Your task to perform on an android device: open chrome privacy settings Image 0: 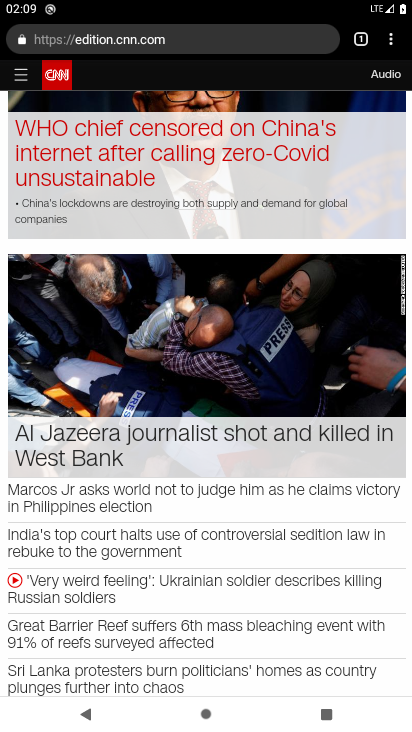
Step 0: press home button
Your task to perform on an android device: open chrome privacy settings Image 1: 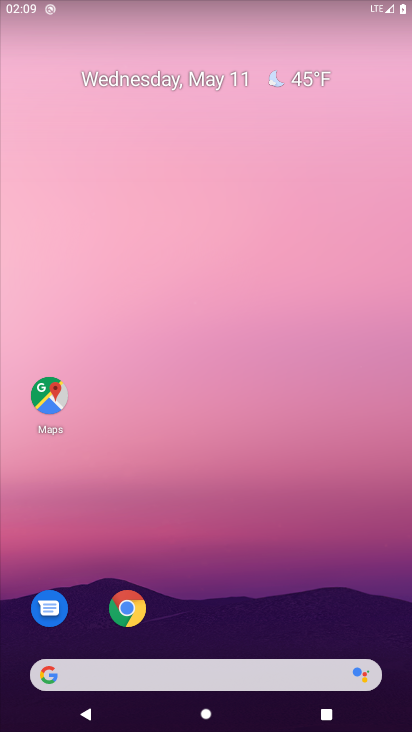
Step 1: drag from (214, 561) to (268, 164)
Your task to perform on an android device: open chrome privacy settings Image 2: 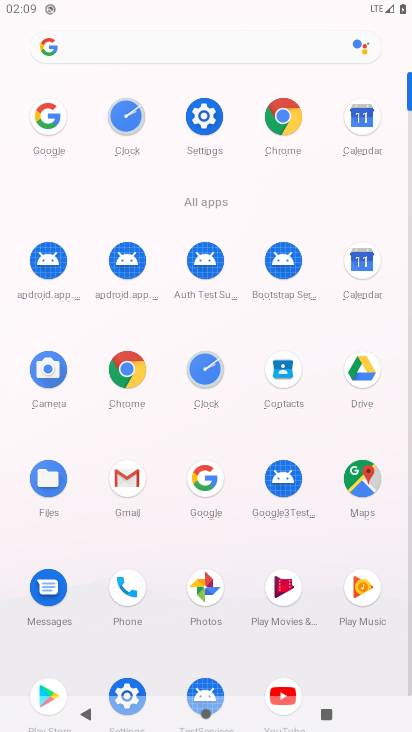
Step 2: click (208, 110)
Your task to perform on an android device: open chrome privacy settings Image 3: 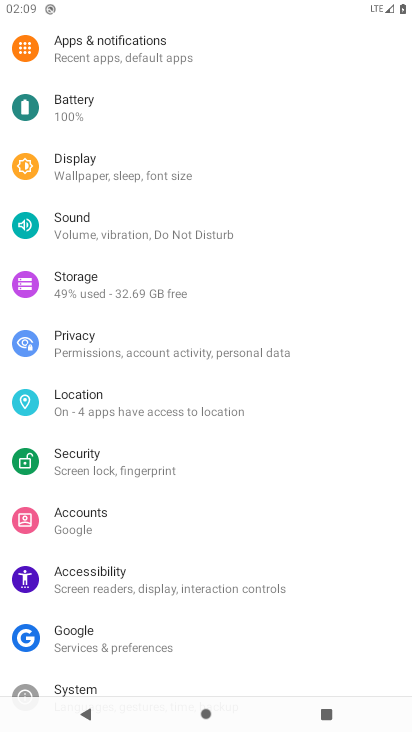
Step 3: click (108, 336)
Your task to perform on an android device: open chrome privacy settings Image 4: 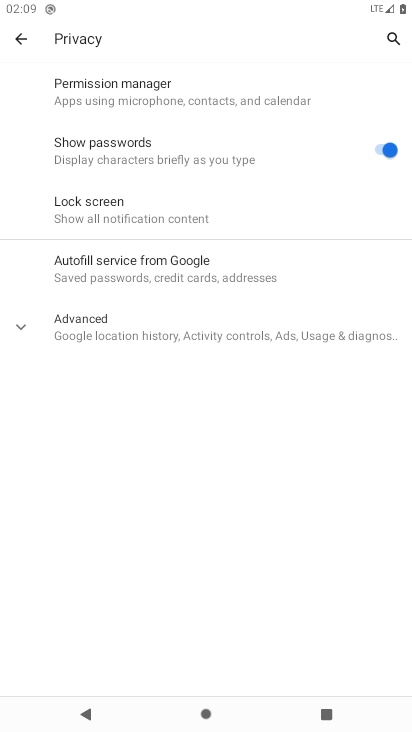
Step 4: click (21, 324)
Your task to perform on an android device: open chrome privacy settings Image 5: 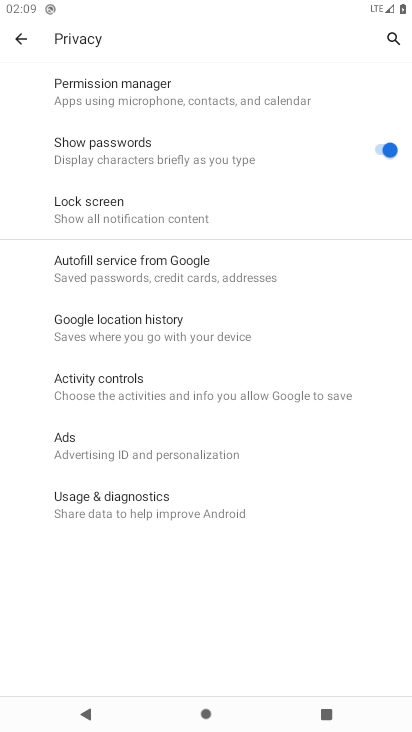
Step 5: task complete